Your task to perform on an android device: allow cookies in the chrome app Image 0: 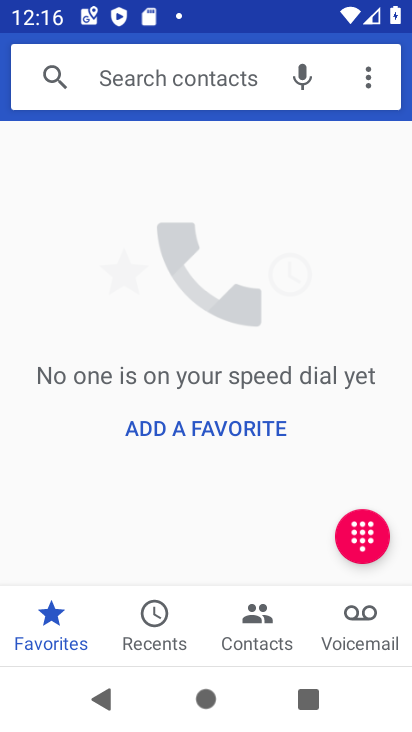
Step 0: press home button
Your task to perform on an android device: allow cookies in the chrome app Image 1: 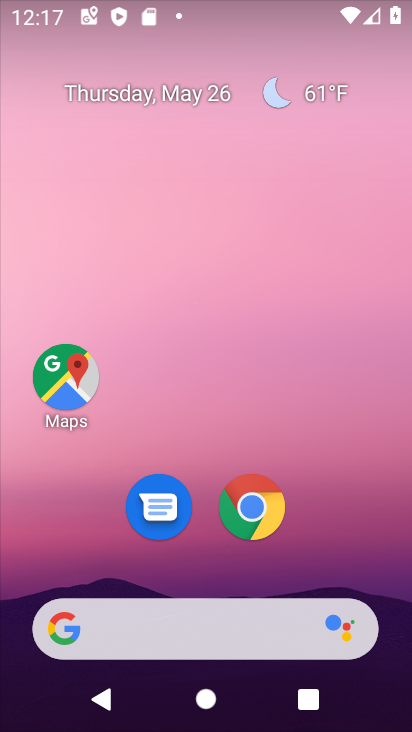
Step 1: click (276, 536)
Your task to perform on an android device: allow cookies in the chrome app Image 2: 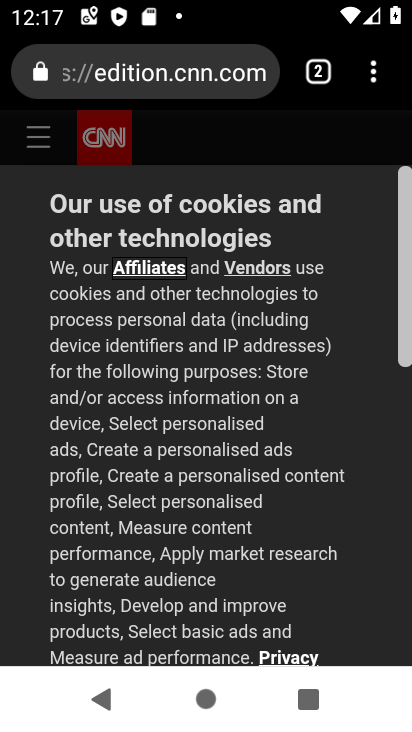
Step 2: click (370, 84)
Your task to perform on an android device: allow cookies in the chrome app Image 3: 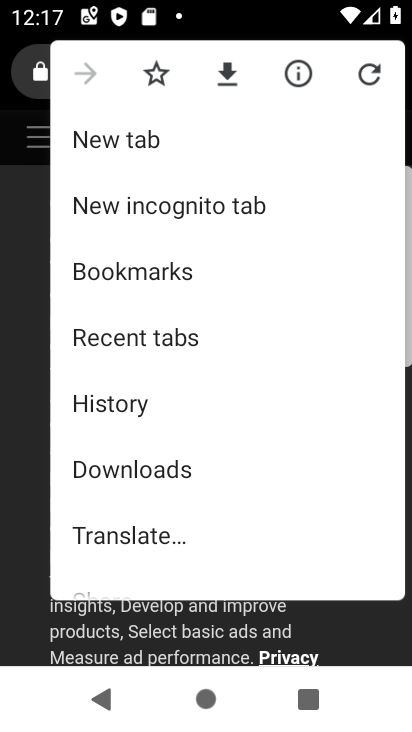
Step 3: drag from (177, 453) to (187, 368)
Your task to perform on an android device: allow cookies in the chrome app Image 4: 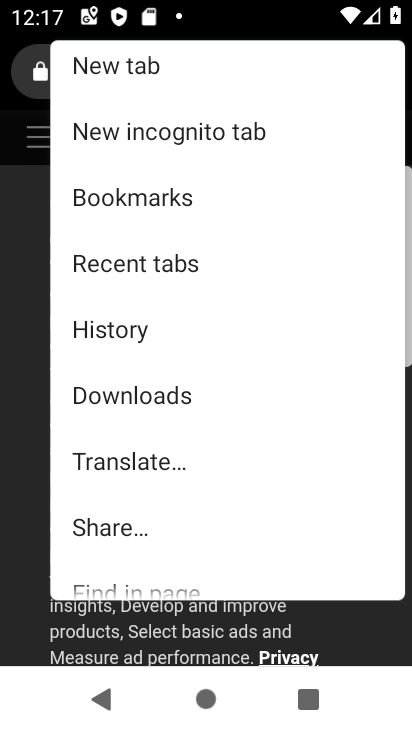
Step 4: drag from (173, 566) to (181, 413)
Your task to perform on an android device: allow cookies in the chrome app Image 5: 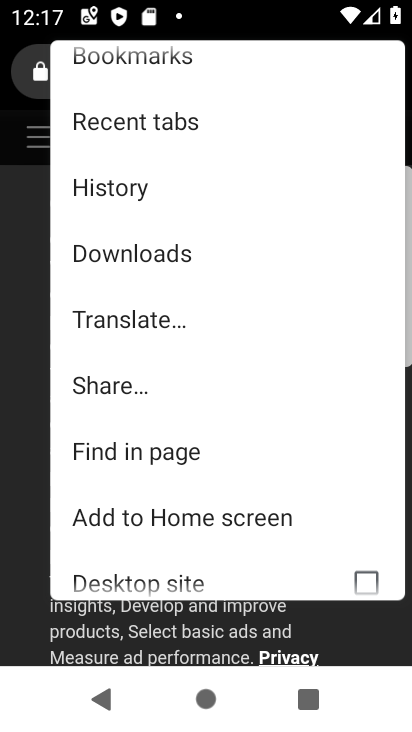
Step 5: drag from (245, 486) to (247, 317)
Your task to perform on an android device: allow cookies in the chrome app Image 6: 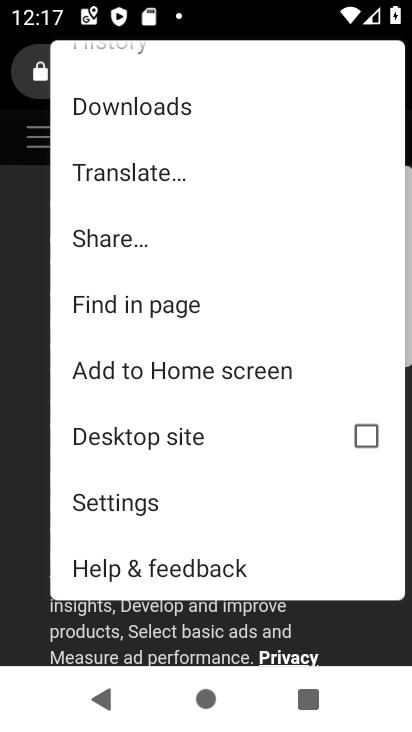
Step 6: click (172, 513)
Your task to perform on an android device: allow cookies in the chrome app Image 7: 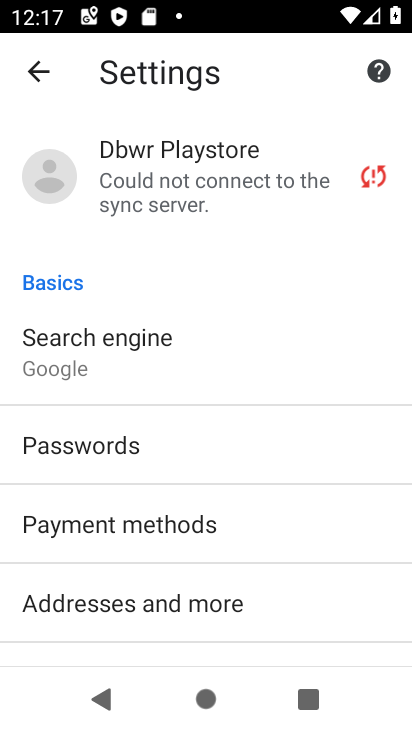
Step 7: task complete